Your task to perform on an android device: add a contact in the contacts app Image 0: 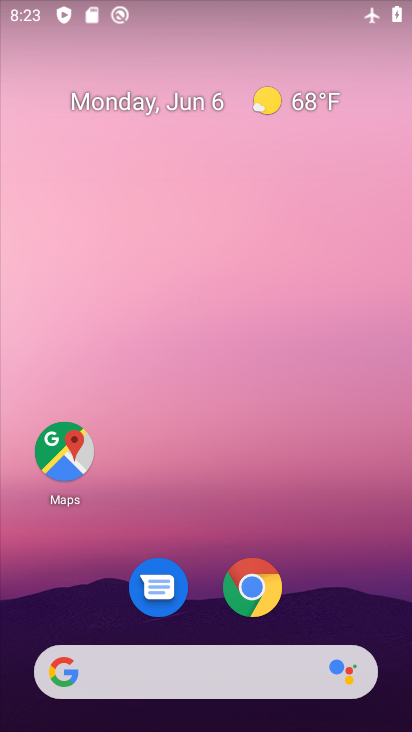
Step 0: drag from (188, 671) to (224, 170)
Your task to perform on an android device: add a contact in the contacts app Image 1: 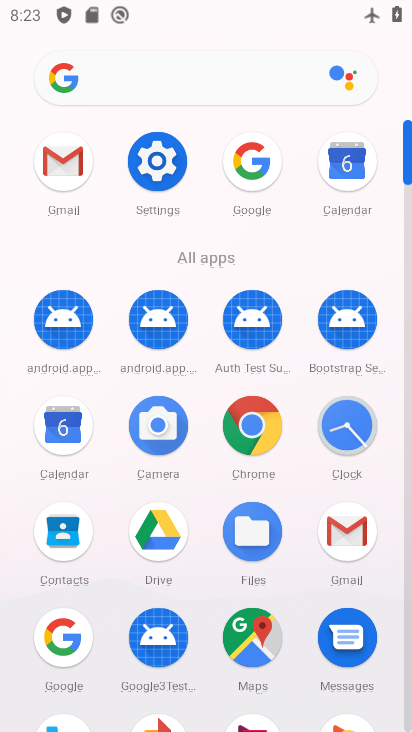
Step 1: click (51, 539)
Your task to perform on an android device: add a contact in the contacts app Image 2: 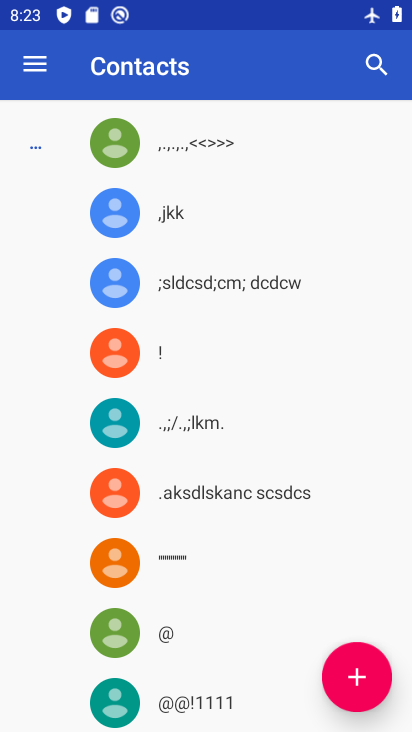
Step 2: click (339, 673)
Your task to perform on an android device: add a contact in the contacts app Image 3: 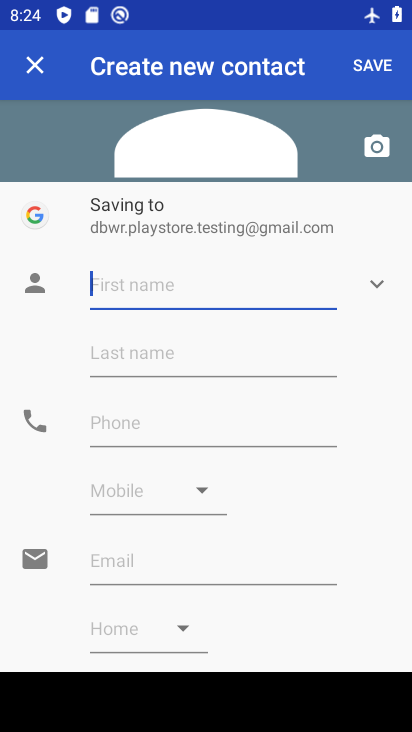
Step 3: type "ajkda"
Your task to perform on an android device: add a contact in the contacts app Image 4: 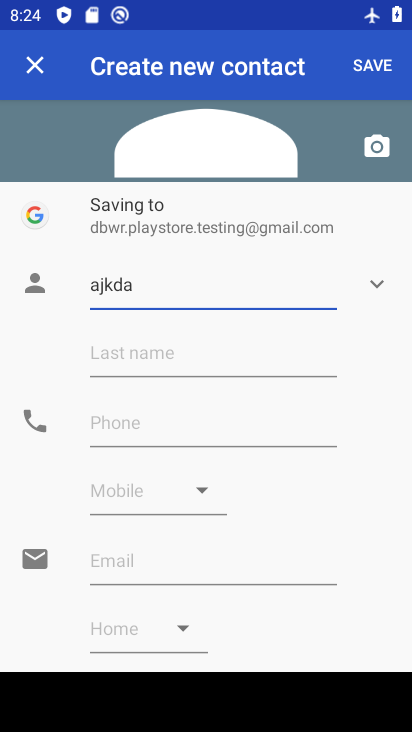
Step 4: click (218, 431)
Your task to perform on an android device: add a contact in the contacts app Image 5: 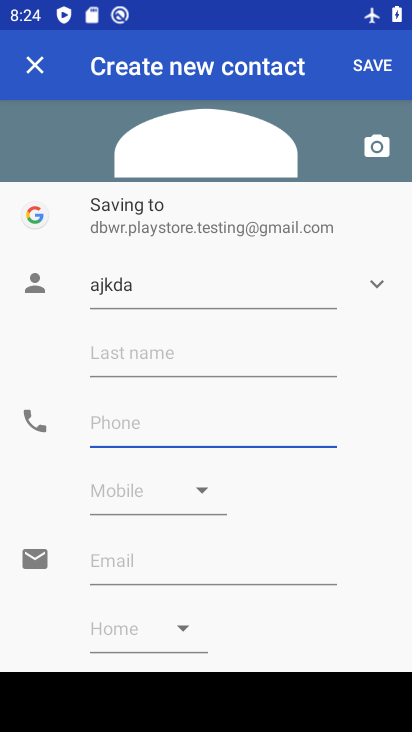
Step 5: type "3875237"
Your task to perform on an android device: add a contact in the contacts app Image 6: 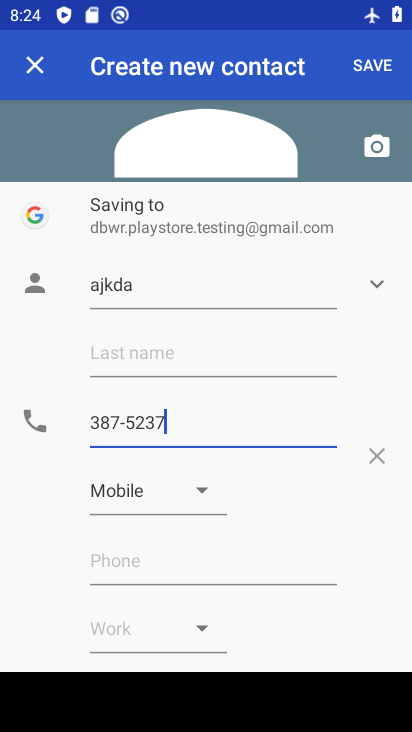
Step 6: click (371, 61)
Your task to perform on an android device: add a contact in the contacts app Image 7: 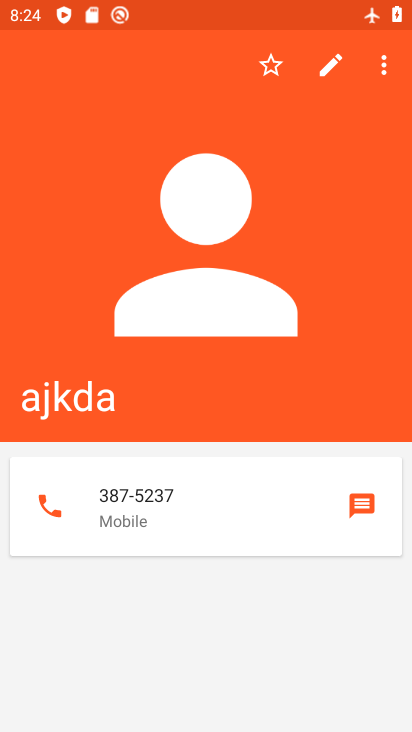
Step 7: task complete